Your task to perform on an android device: turn off translation in the chrome app Image 0: 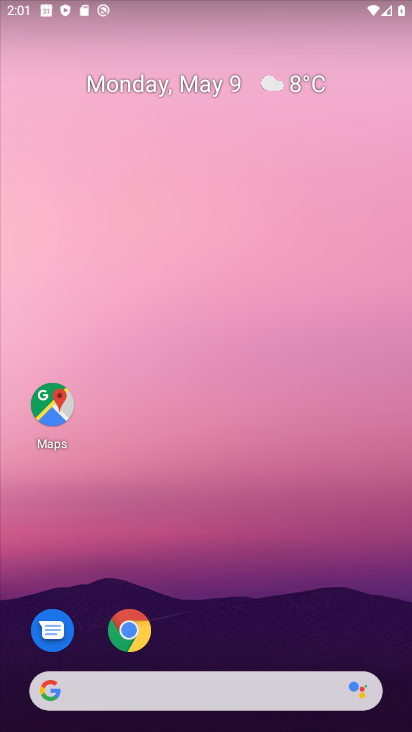
Step 0: click (120, 642)
Your task to perform on an android device: turn off translation in the chrome app Image 1: 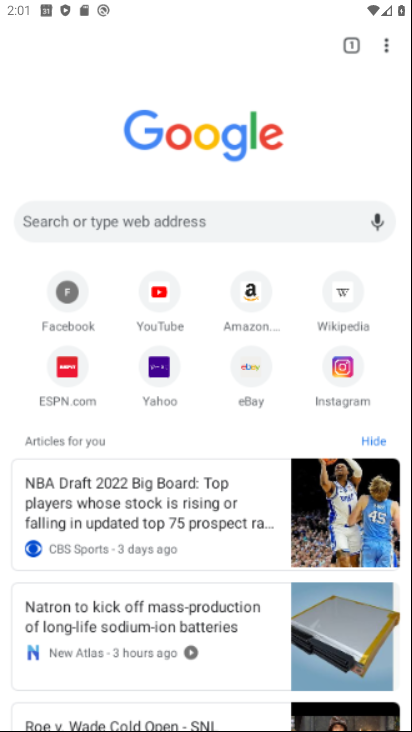
Step 1: drag from (389, 47) to (225, 384)
Your task to perform on an android device: turn off translation in the chrome app Image 2: 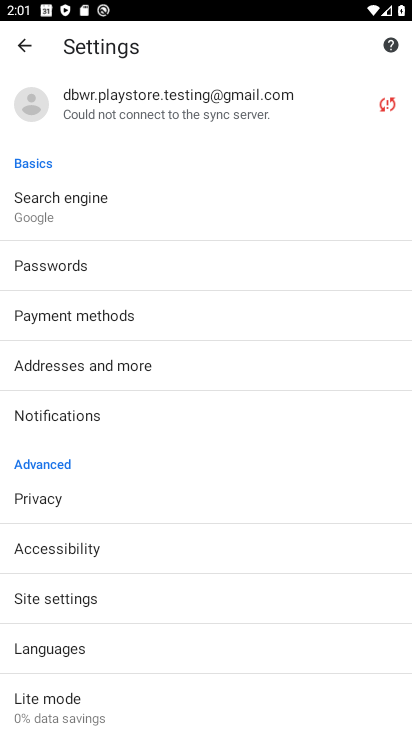
Step 2: click (49, 646)
Your task to perform on an android device: turn off translation in the chrome app Image 3: 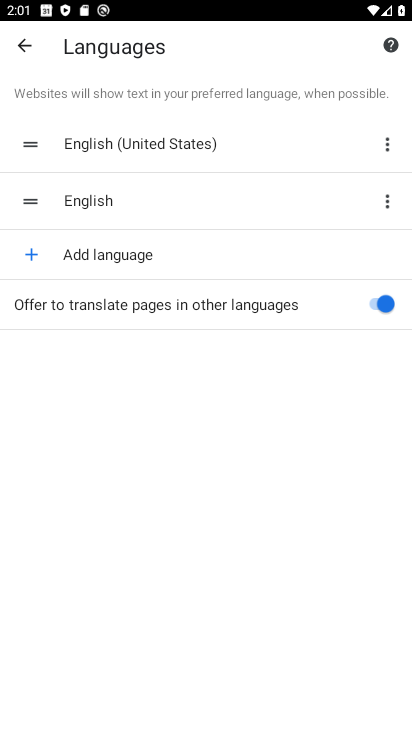
Step 3: click (373, 305)
Your task to perform on an android device: turn off translation in the chrome app Image 4: 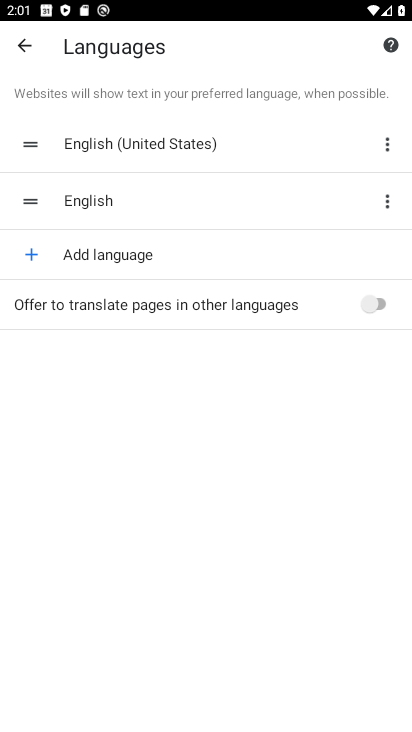
Step 4: task complete